Your task to perform on an android device: Do I have any events today? Image 0: 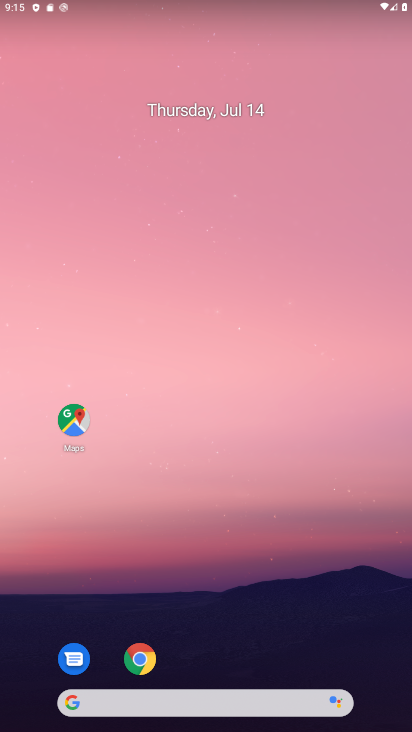
Step 0: drag from (289, 702) to (281, 55)
Your task to perform on an android device: Do I have any events today? Image 1: 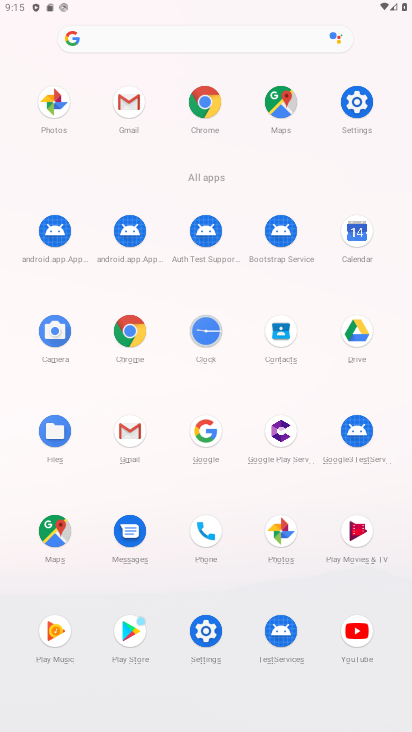
Step 1: click (346, 218)
Your task to perform on an android device: Do I have any events today? Image 2: 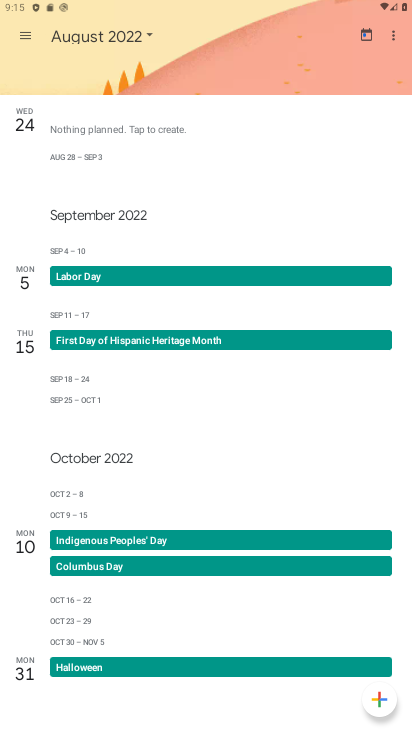
Step 2: click (148, 32)
Your task to perform on an android device: Do I have any events today? Image 3: 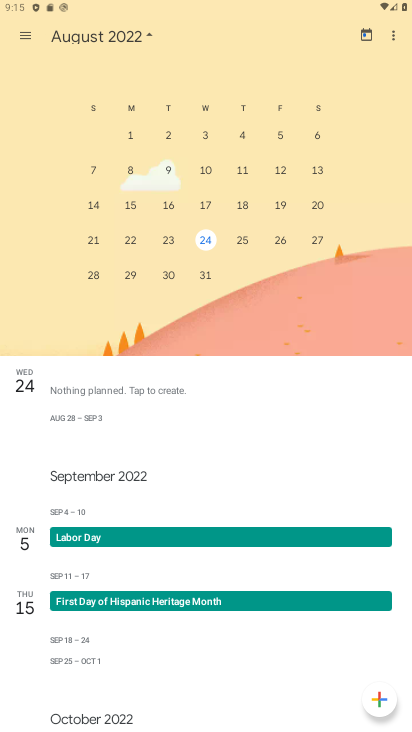
Step 3: drag from (76, 171) to (322, 165)
Your task to perform on an android device: Do I have any events today? Image 4: 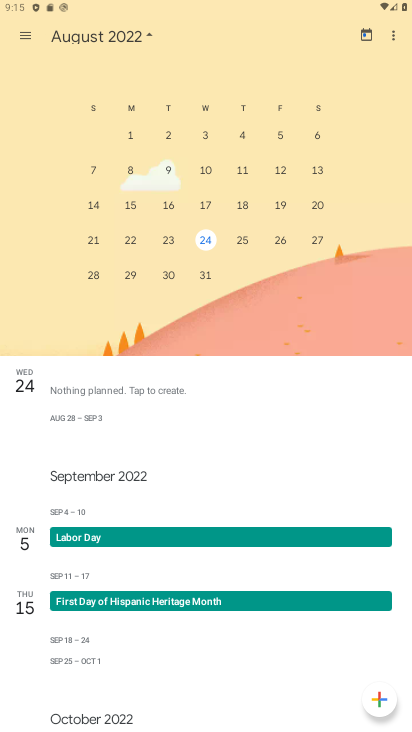
Step 4: drag from (27, 171) to (395, 184)
Your task to perform on an android device: Do I have any events today? Image 5: 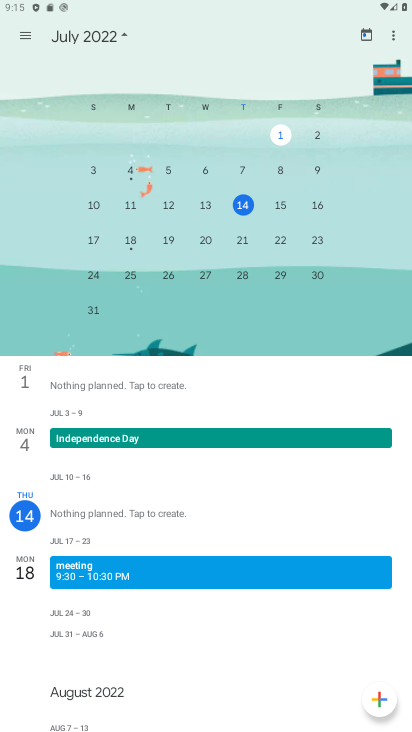
Step 5: click (276, 203)
Your task to perform on an android device: Do I have any events today? Image 6: 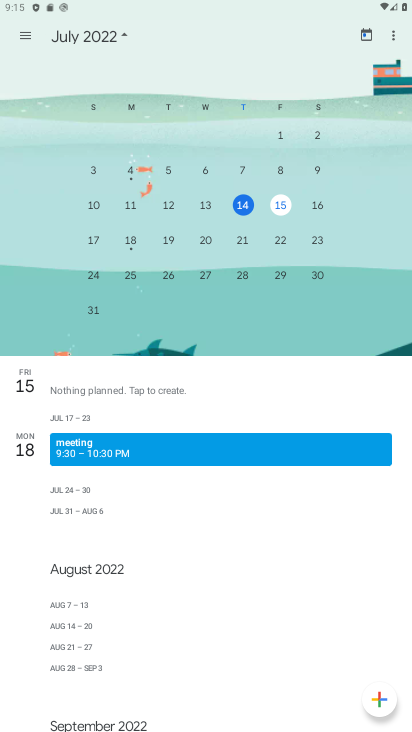
Step 6: task complete